Your task to perform on an android device: see tabs open on other devices in the chrome app Image 0: 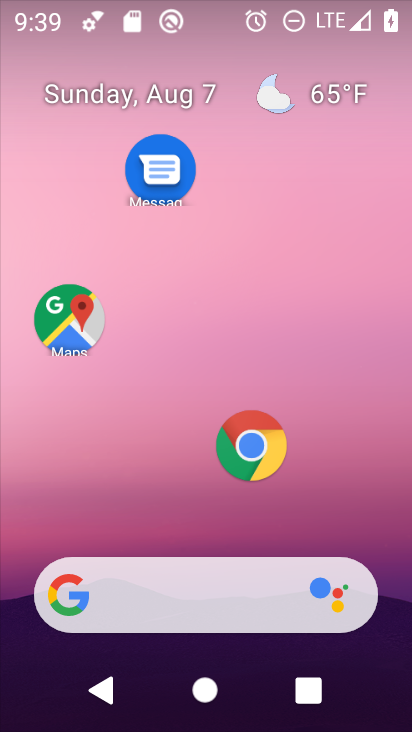
Step 0: press home button
Your task to perform on an android device: see tabs open on other devices in the chrome app Image 1: 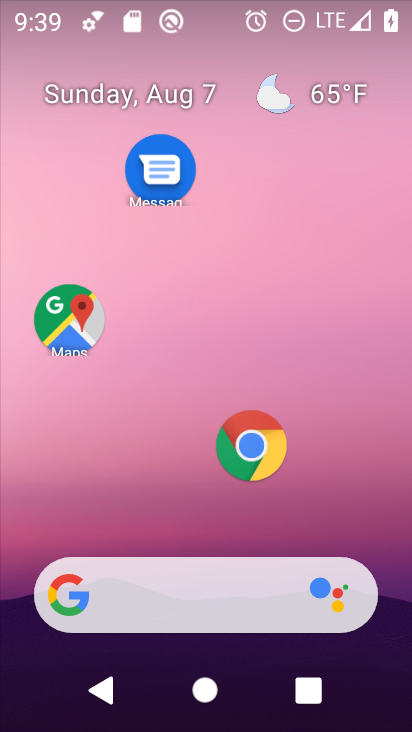
Step 1: click (246, 438)
Your task to perform on an android device: see tabs open on other devices in the chrome app Image 2: 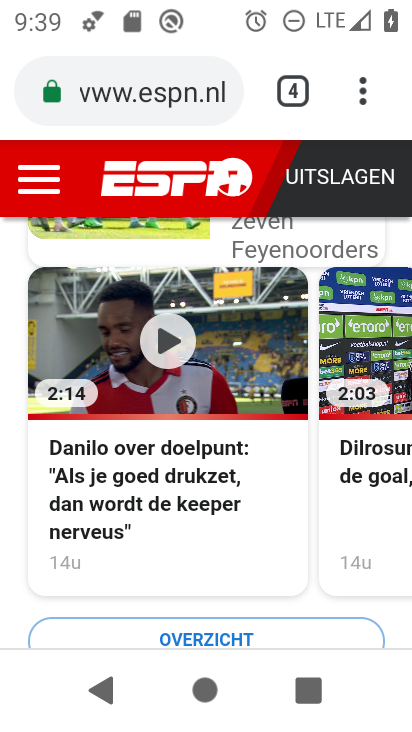
Step 2: click (361, 86)
Your task to perform on an android device: see tabs open on other devices in the chrome app Image 3: 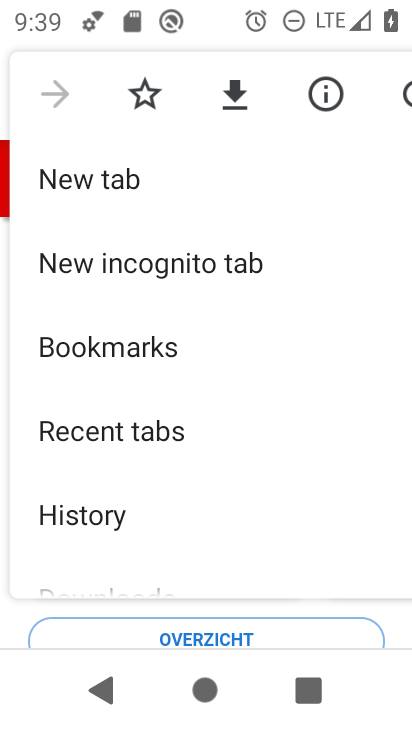
Step 3: click (199, 432)
Your task to perform on an android device: see tabs open on other devices in the chrome app Image 4: 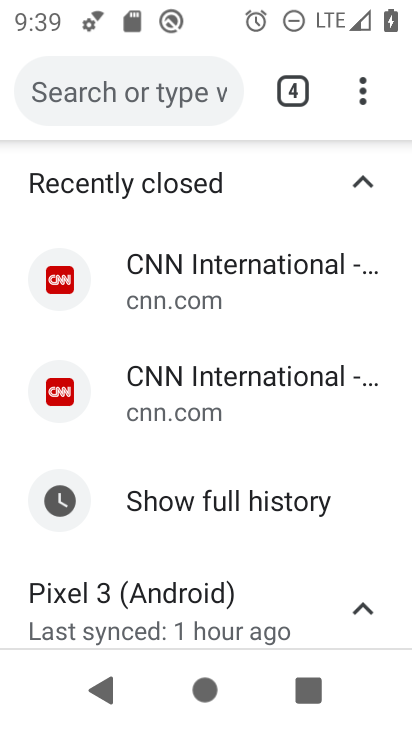
Step 4: task complete